Your task to perform on an android device: Open battery settings Image 0: 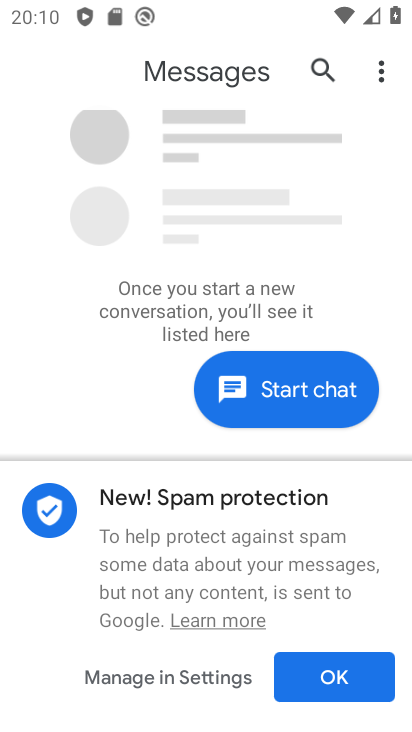
Step 0: press home button
Your task to perform on an android device: Open battery settings Image 1: 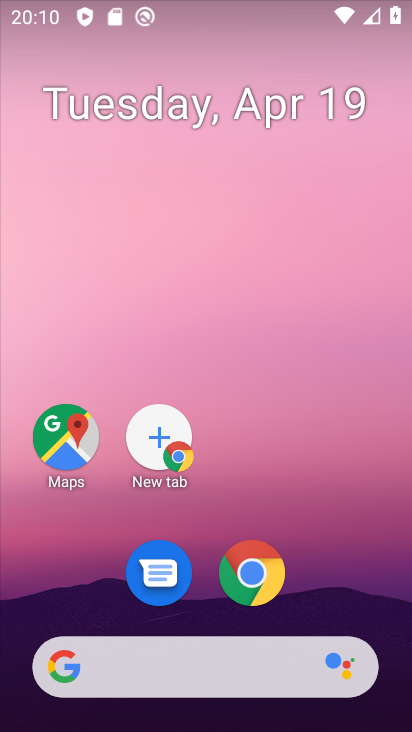
Step 1: drag from (360, 599) to (315, 11)
Your task to perform on an android device: Open battery settings Image 2: 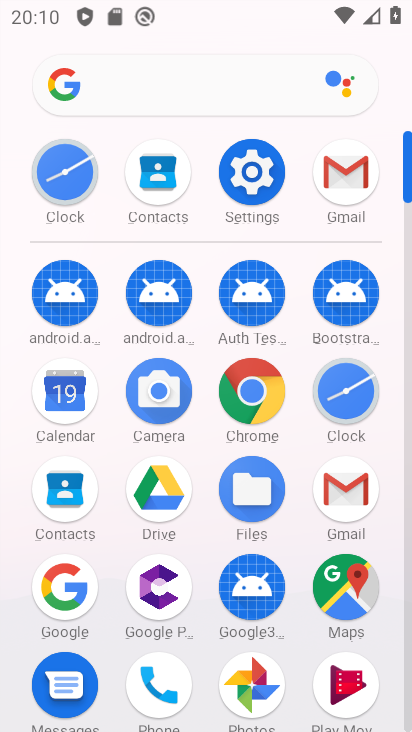
Step 2: click (246, 192)
Your task to perform on an android device: Open battery settings Image 3: 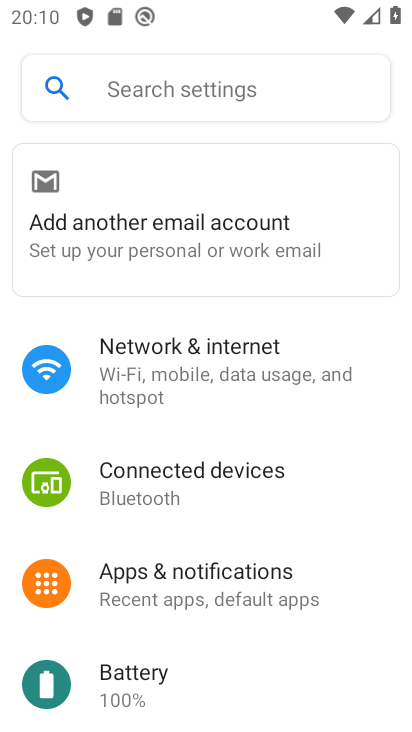
Step 3: click (121, 674)
Your task to perform on an android device: Open battery settings Image 4: 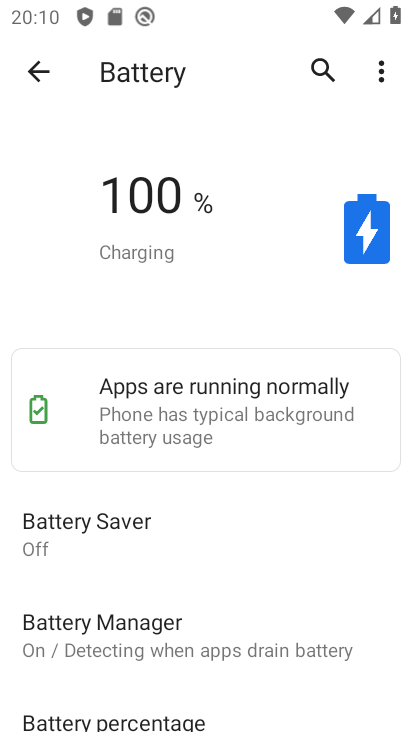
Step 4: click (383, 62)
Your task to perform on an android device: Open battery settings Image 5: 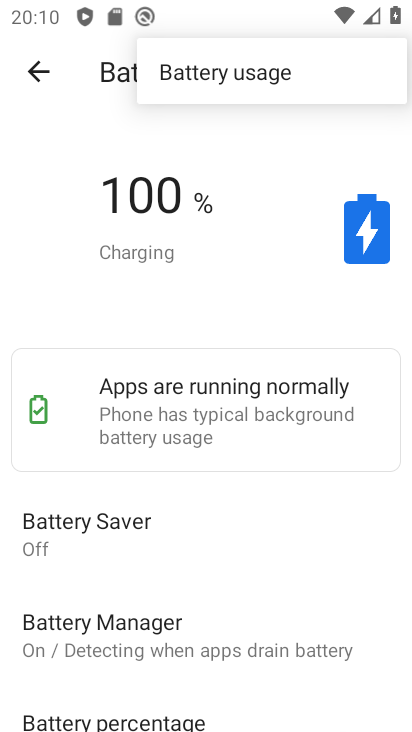
Step 5: click (311, 153)
Your task to perform on an android device: Open battery settings Image 6: 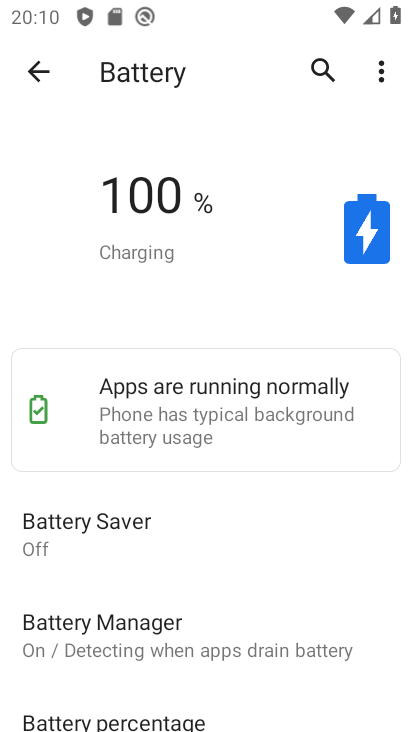
Step 6: drag from (213, 668) to (219, 234)
Your task to perform on an android device: Open battery settings Image 7: 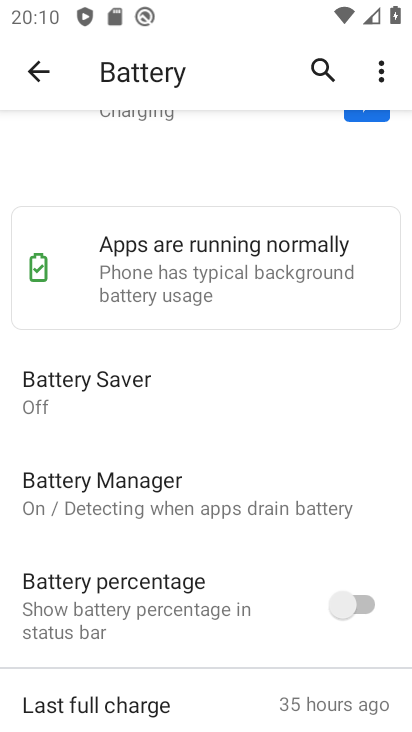
Step 7: drag from (242, 594) to (229, 227)
Your task to perform on an android device: Open battery settings Image 8: 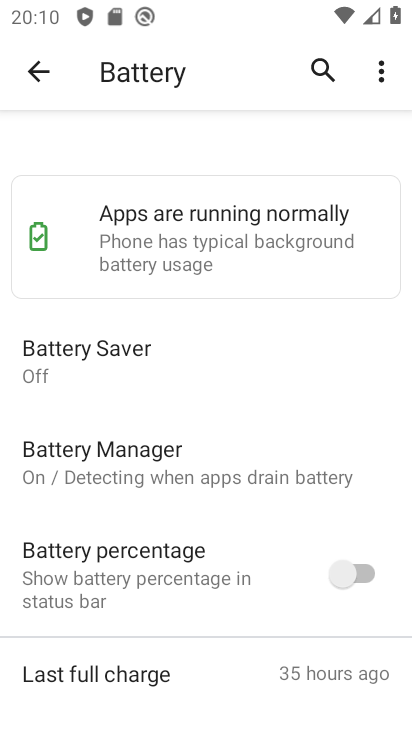
Step 8: drag from (218, 659) to (222, 189)
Your task to perform on an android device: Open battery settings Image 9: 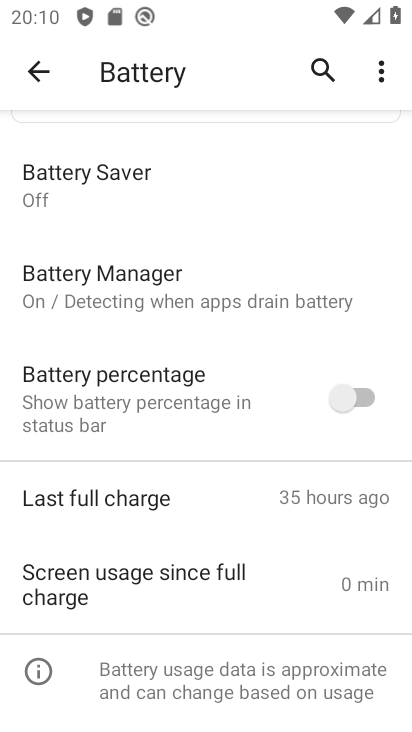
Step 9: click (198, 224)
Your task to perform on an android device: Open battery settings Image 10: 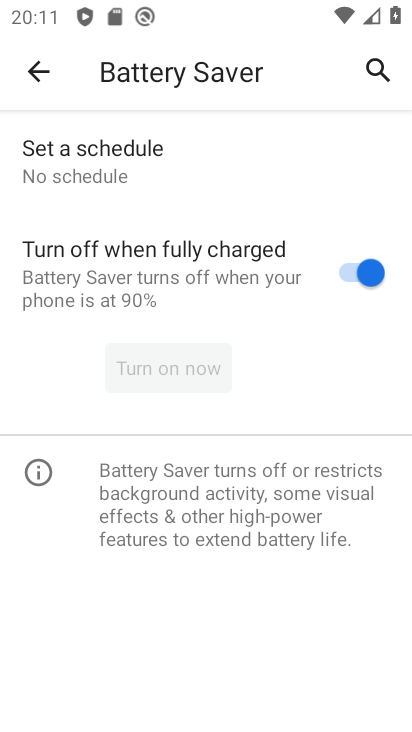
Step 10: drag from (240, 633) to (254, 211)
Your task to perform on an android device: Open battery settings Image 11: 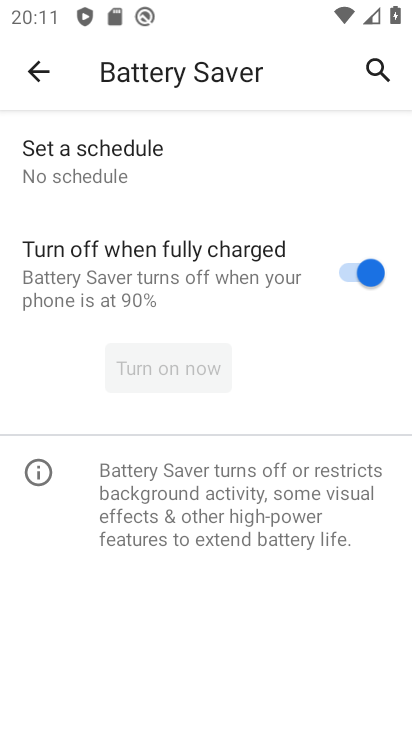
Step 11: click (33, 65)
Your task to perform on an android device: Open battery settings Image 12: 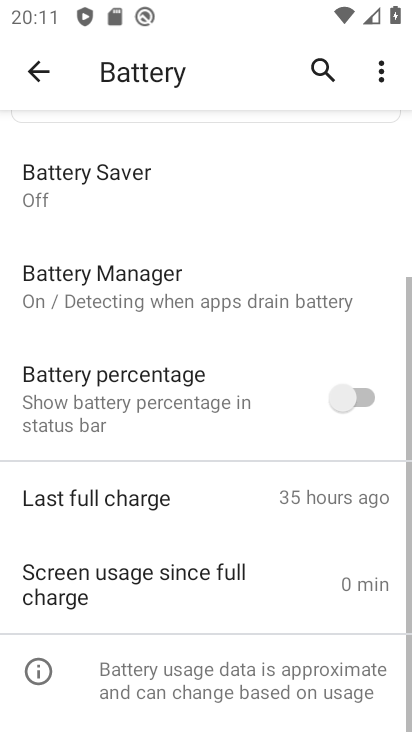
Step 12: task complete